Your task to perform on an android device: change notification settings in the gmail app Image 0: 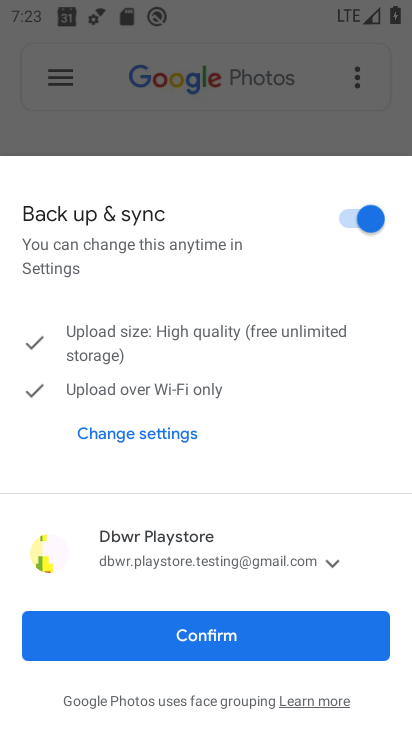
Step 0: press home button
Your task to perform on an android device: change notification settings in the gmail app Image 1: 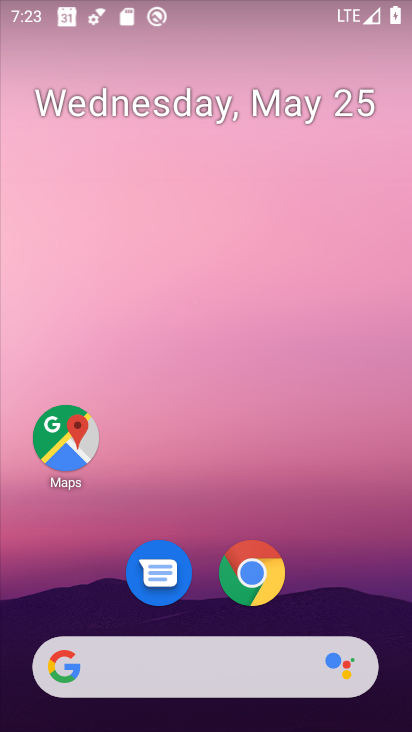
Step 1: drag from (394, 698) to (377, 171)
Your task to perform on an android device: change notification settings in the gmail app Image 2: 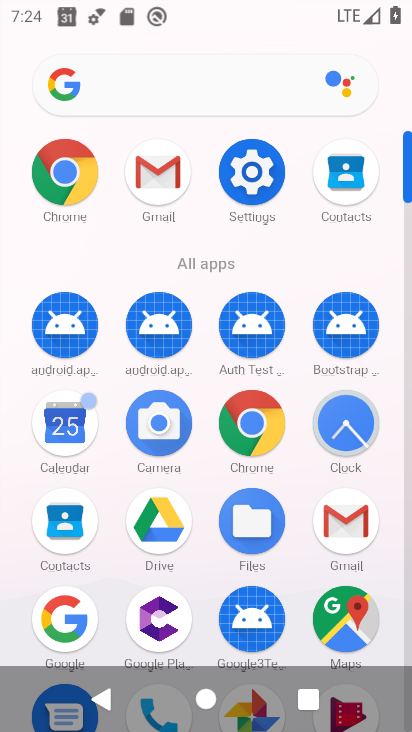
Step 2: click (356, 514)
Your task to perform on an android device: change notification settings in the gmail app Image 3: 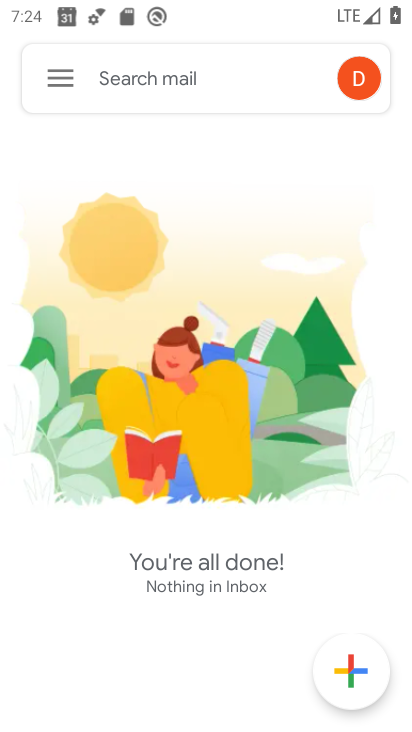
Step 3: click (65, 79)
Your task to perform on an android device: change notification settings in the gmail app Image 4: 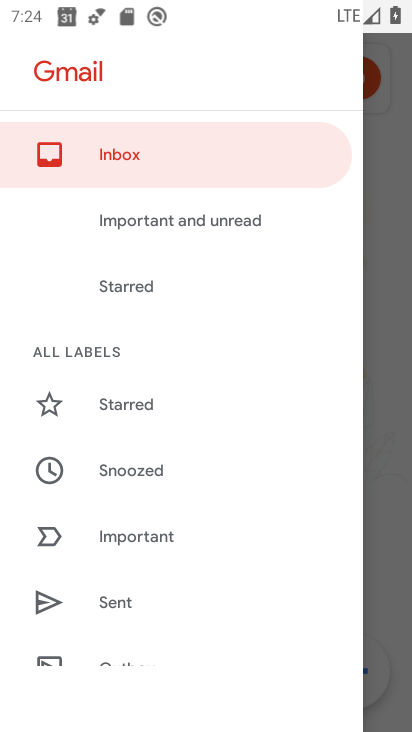
Step 4: drag from (222, 645) to (303, 123)
Your task to perform on an android device: change notification settings in the gmail app Image 5: 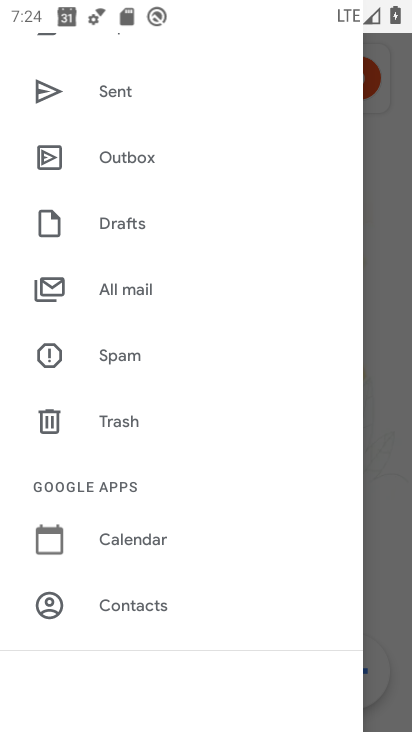
Step 5: drag from (260, 602) to (257, 267)
Your task to perform on an android device: change notification settings in the gmail app Image 6: 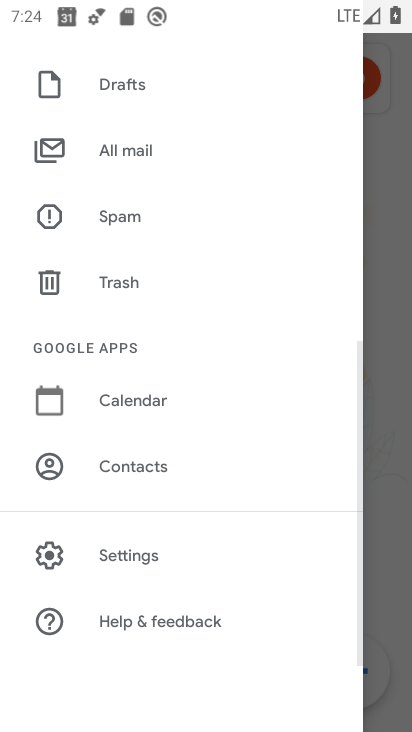
Step 6: click (112, 561)
Your task to perform on an android device: change notification settings in the gmail app Image 7: 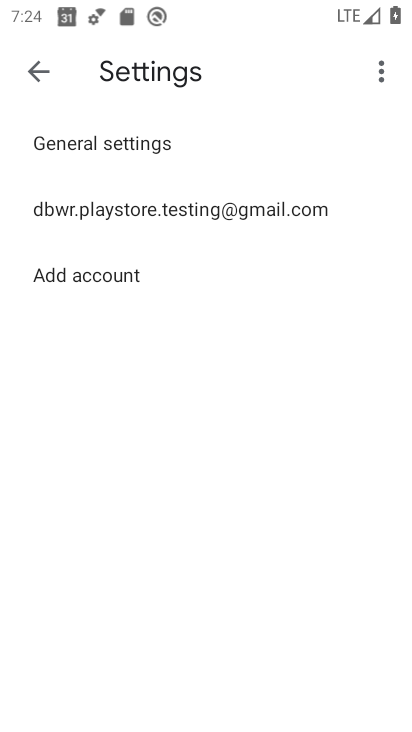
Step 7: click (117, 144)
Your task to perform on an android device: change notification settings in the gmail app Image 8: 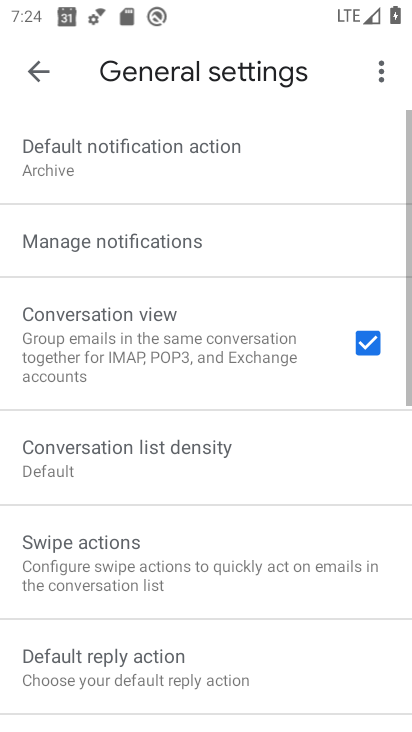
Step 8: click (124, 243)
Your task to perform on an android device: change notification settings in the gmail app Image 9: 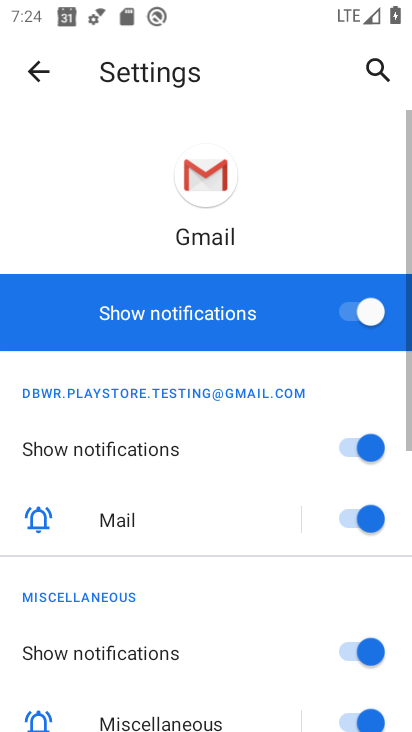
Step 9: click (349, 309)
Your task to perform on an android device: change notification settings in the gmail app Image 10: 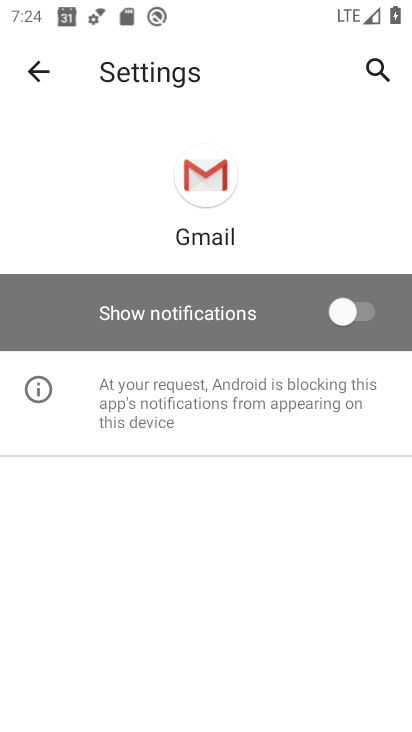
Step 10: task complete